Your task to perform on an android device: see tabs open on other devices in the chrome app Image 0: 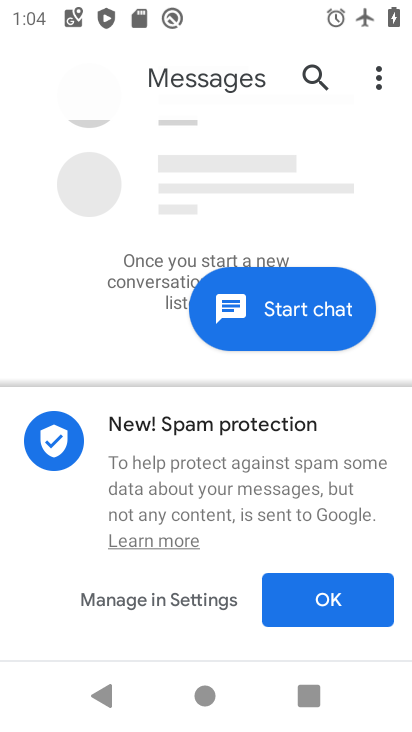
Step 0: press home button
Your task to perform on an android device: see tabs open on other devices in the chrome app Image 1: 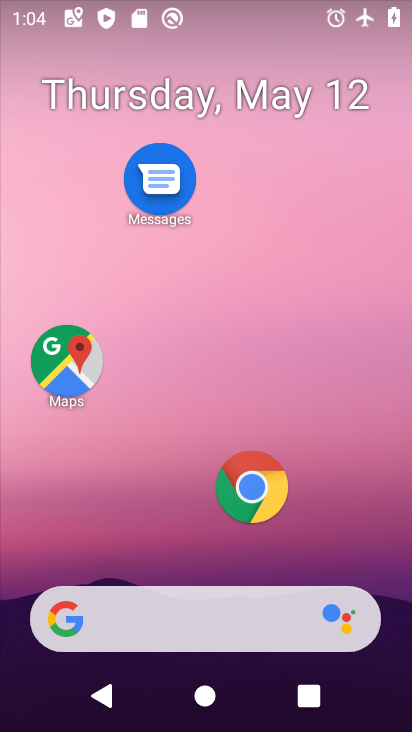
Step 1: click (253, 485)
Your task to perform on an android device: see tabs open on other devices in the chrome app Image 2: 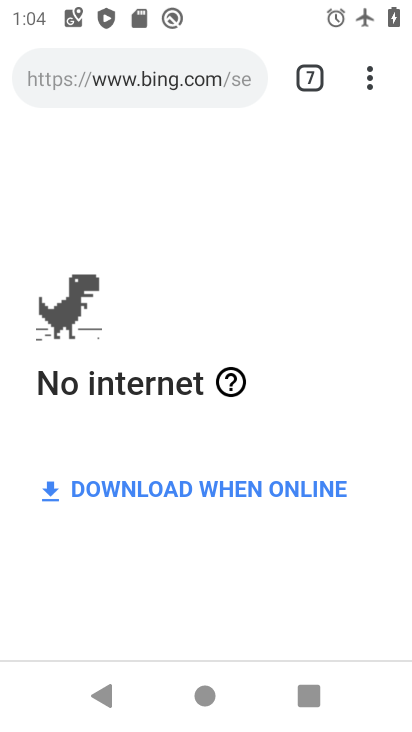
Step 2: task complete